Your task to perform on an android device: toggle notification dots Image 0: 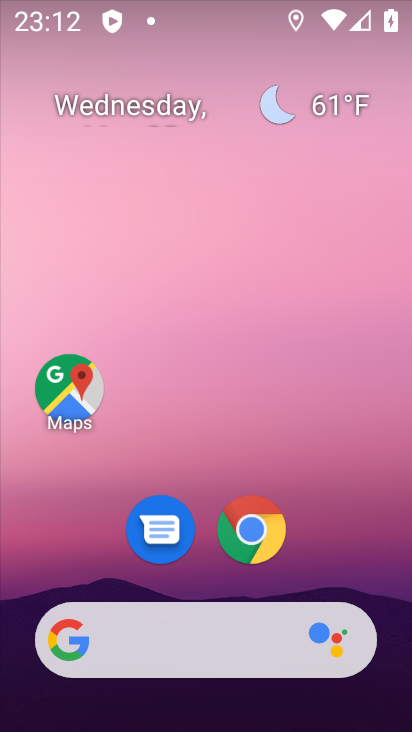
Step 0: drag from (381, 571) to (410, 193)
Your task to perform on an android device: toggle notification dots Image 1: 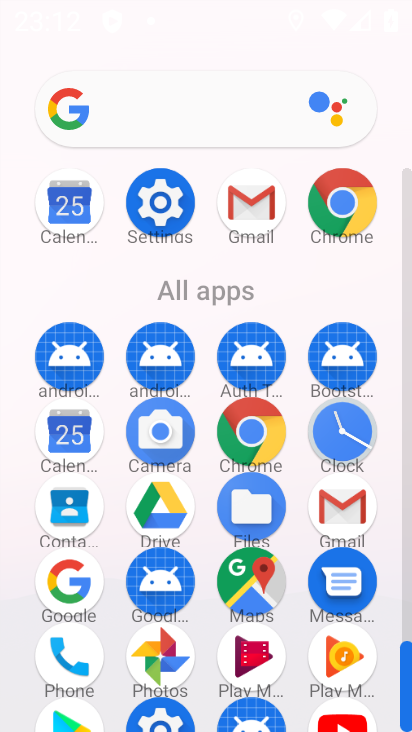
Step 1: click (168, 199)
Your task to perform on an android device: toggle notification dots Image 2: 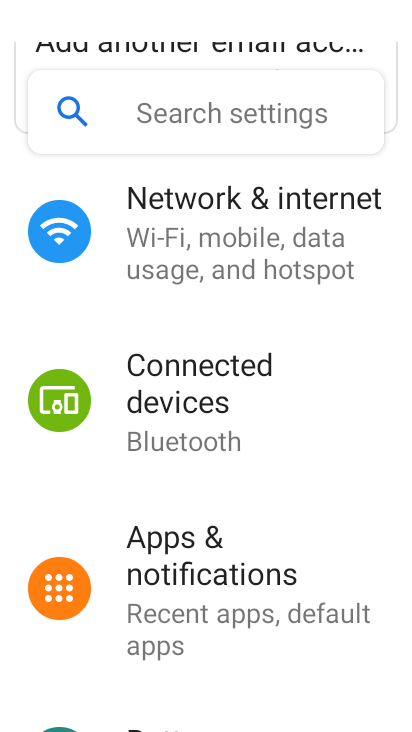
Step 2: drag from (349, 650) to (341, 539)
Your task to perform on an android device: toggle notification dots Image 3: 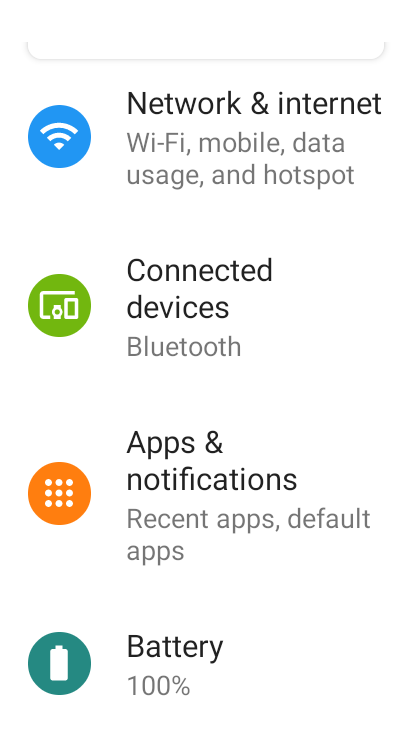
Step 3: drag from (325, 628) to (321, 514)
Your task to perform on an android device: toggle notification dots Image 4: 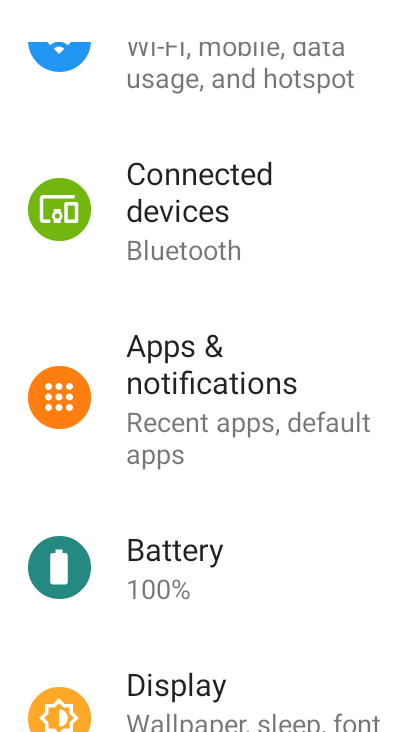
Step 4: drag from (322, 604) to (348, 477)
Your task to perform on an android device: toggle notification dots Image 5: 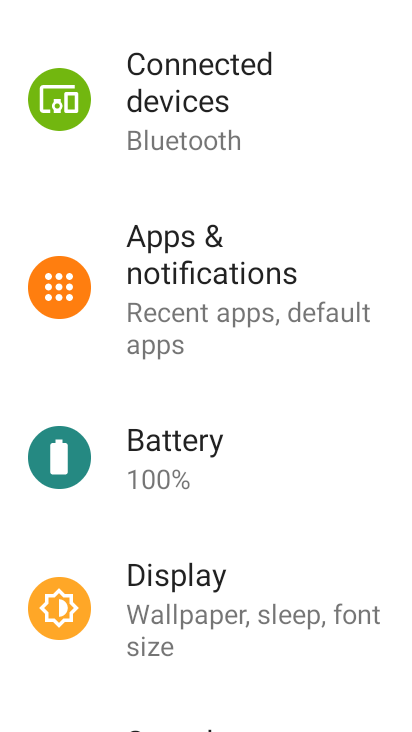
Step 5: drag from (336, 611) to (360, 489)
Your task to perform on an android device: toggle notification dots Image 6: 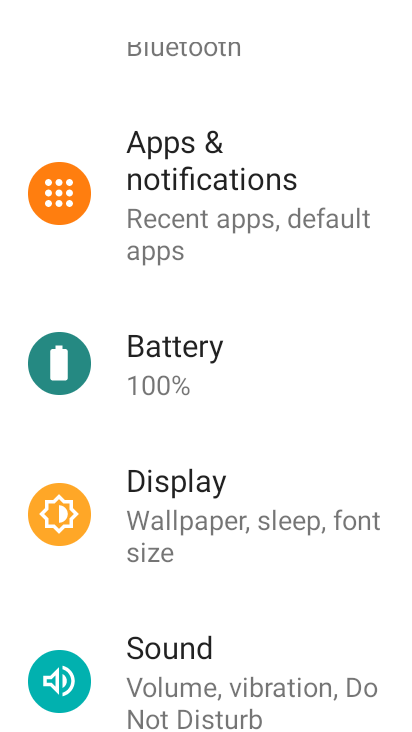
Step 6: drag from (348, 624) to (359, 527)
Your task to perform on an android device: toggle notification dots Image 7: 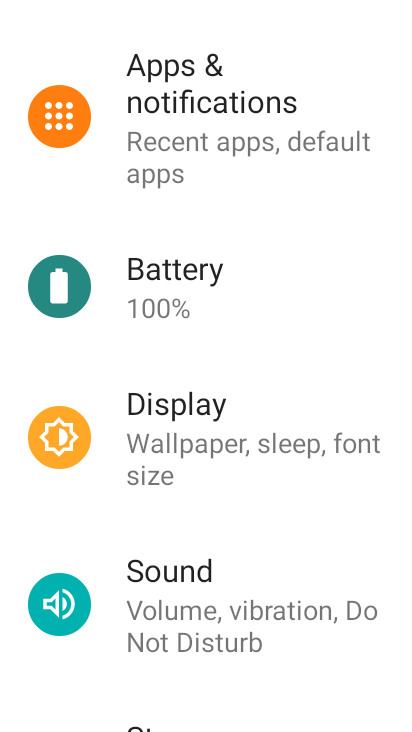
Step 7: drag from (356, 657) to (347, 517)
Your task to perform on an android device: toggle notification dots Image 8: 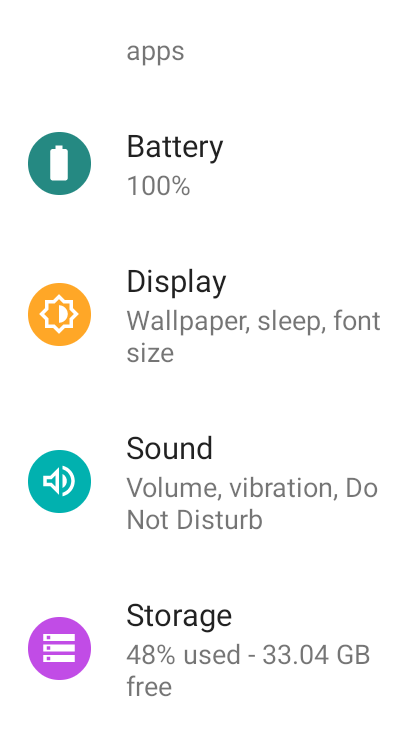
Step 8: drag from (347, 613) to (363, 502)
Your task to perform on an android device: toggle notification dots Image 9: 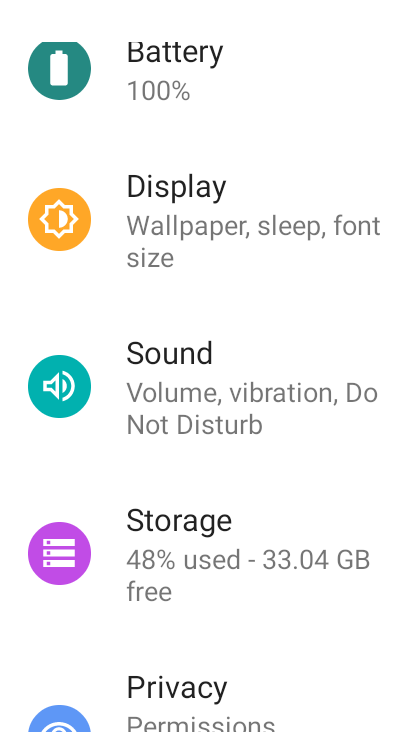
Step 9: drag from (334, 642) to (332, 528)
Your task to perform on an android device: toggle notification dots Image 10: 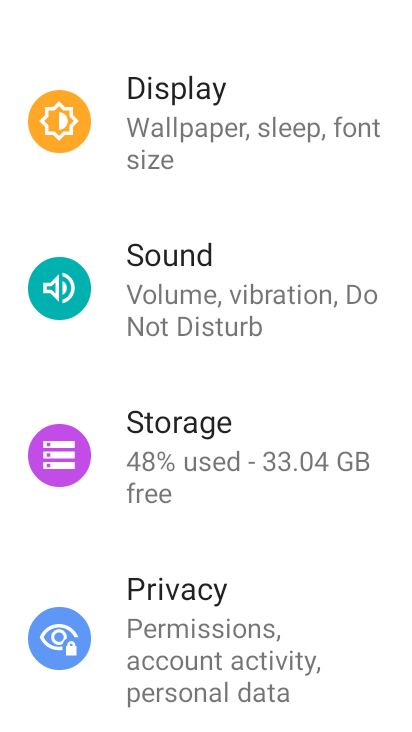
Step 10: drag from (333, 503) to (341, 607)
Your task to perform on an android device: toggle notification dots Image 11: 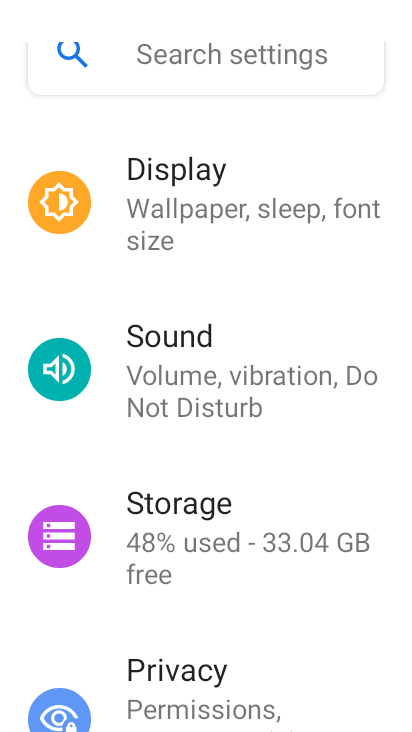
Step 11: drag from (354, 470) to (349, 588)
Your task to perform on an android device: toggle notification dots Image 12: 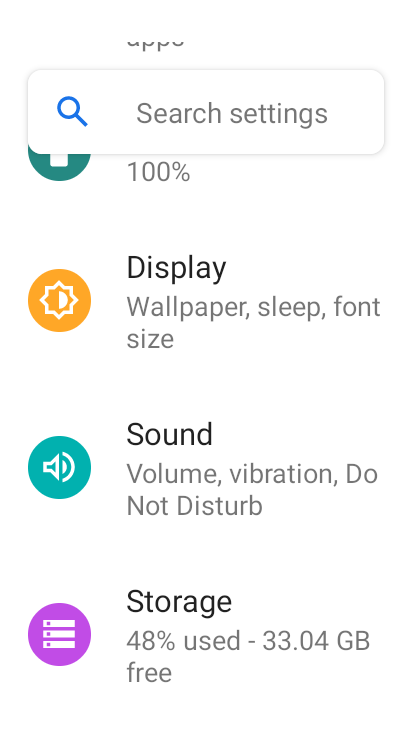
Step 12: drag from (334, 494) to (331, 592)
Your task to perform on an android device: toggle notification dots Image 13: 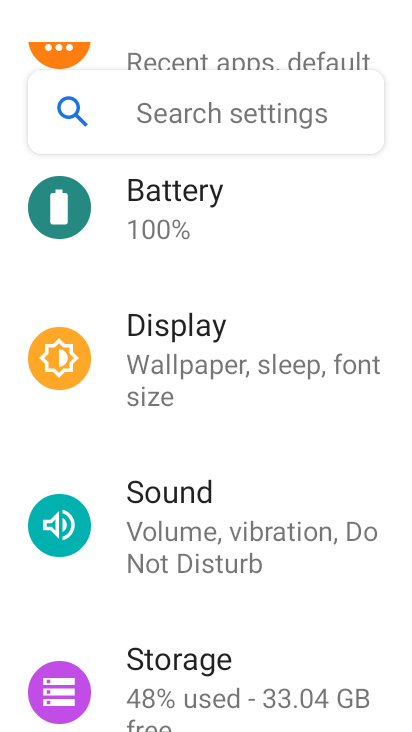
Step 13: drag from (332, 438) to (324, 558)
Your task to perform on an android device: toggle notification dots Image 14: 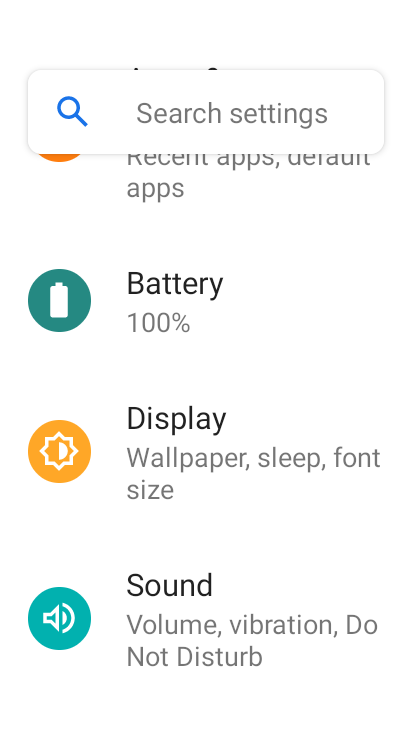
Step 14: drag from (335, 386) to (321, 494)
Your task to perform on an android device: toggle notification dots Image 15: 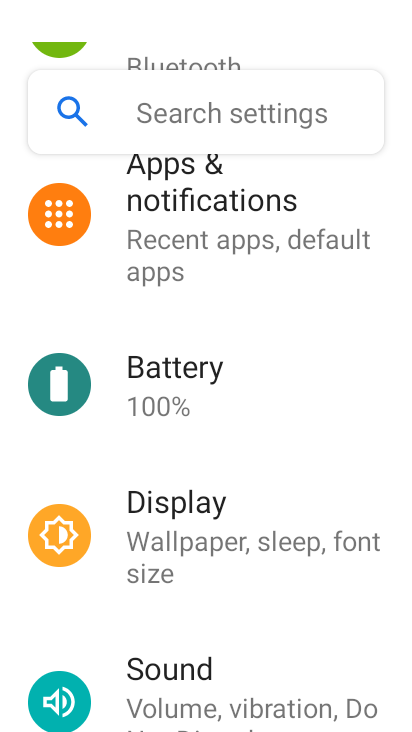
Step 15: drag from (328, 346) to (333, 443)
Your task to perform on an android device: toggle notification dots Image 16: 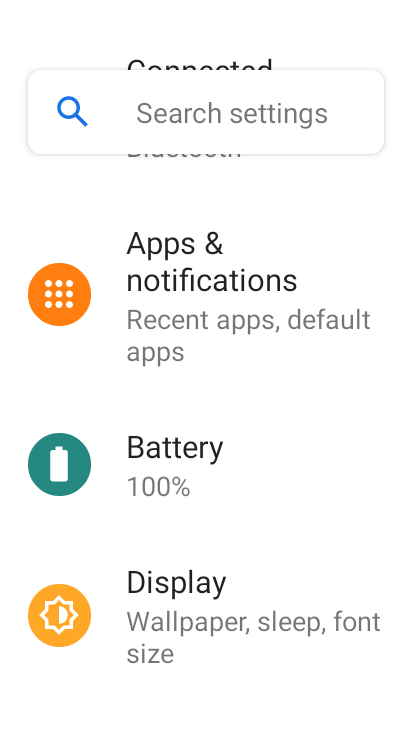
Step 16: drag from (332, 374) to (321, 474)
Your task to perform on an android device: toggle notification dots Image 17: 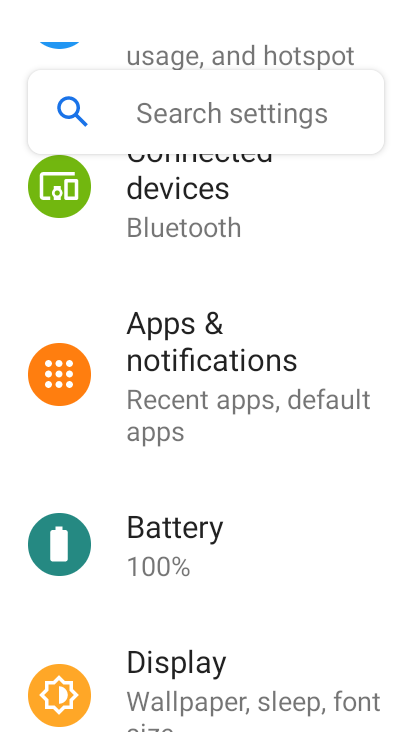
Step 17: click (273, 390)
Your task to perform on an android device: toggle notification dots Image 18: 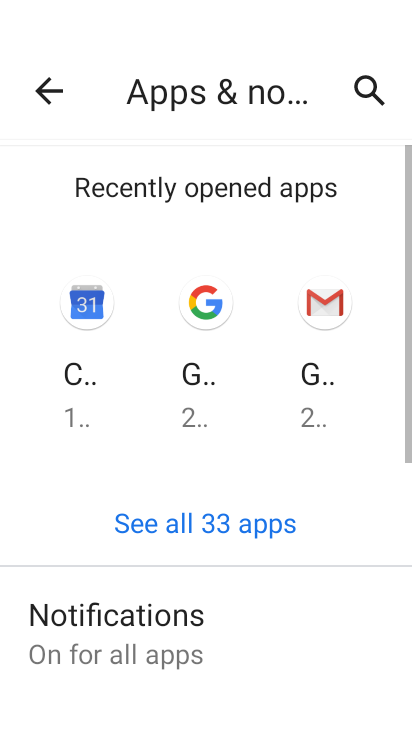
Step 18: drag from (269, 513) to (281, 398)
Your task to perform on an android device: toggle notification dots Image 19: 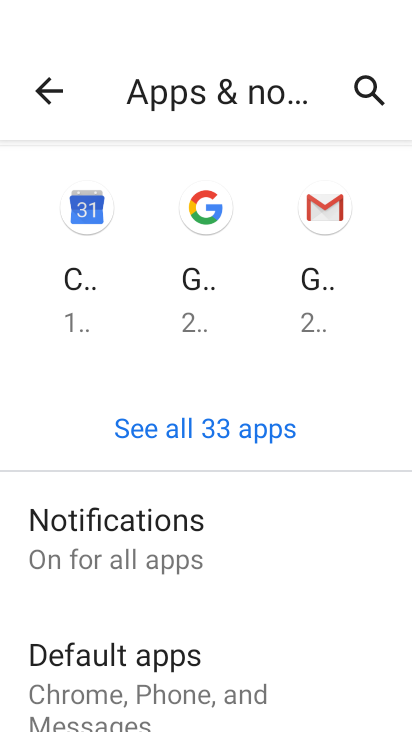
Step 19: drag from (291, 537) to (313, 421)
Your task to perform on an android device: toggle notification dots Image 20: 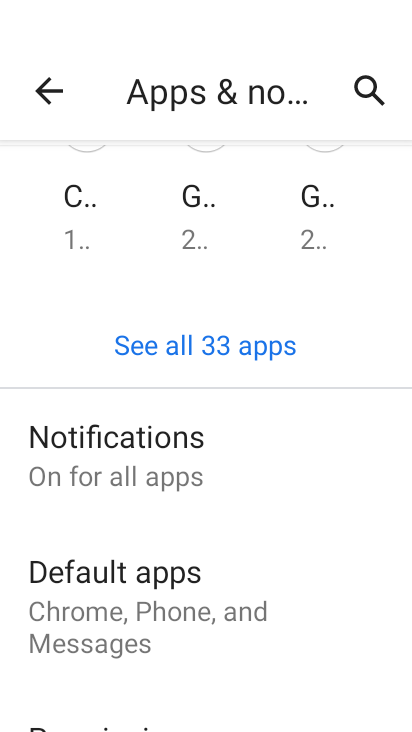
Step 20: click (267, 465)
Your task to perform on an android device: toggle notification dots Image 21: 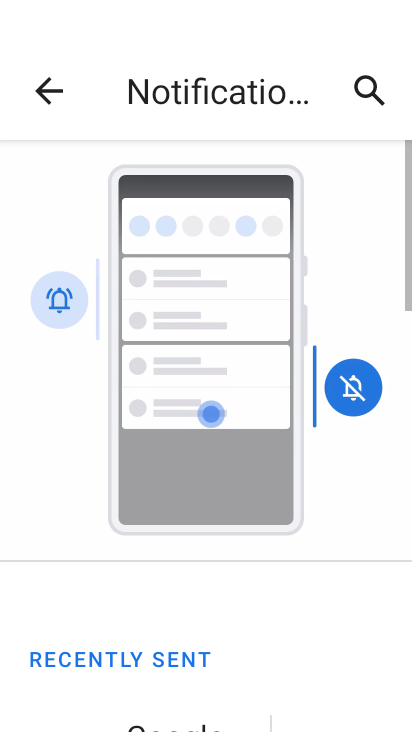
Step 21: drag from (310, 560) to (325, 445)
Your task to perform on an android device: toggle notification dots Image 22: 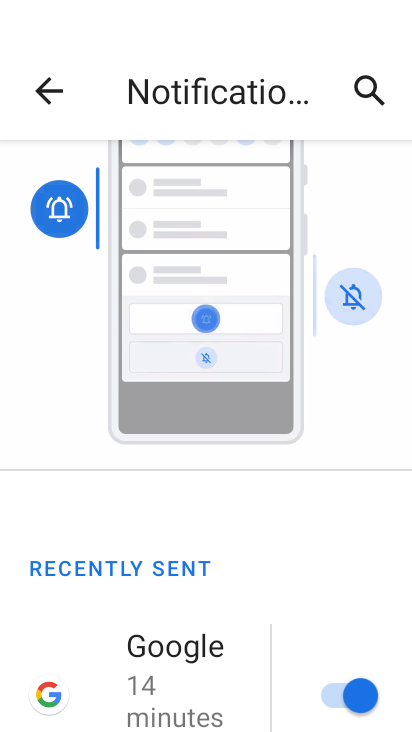
Step 22: drag from (303, 576) to (315, 489)
Your task to perform on an android device: toggle notification dots Image 23: 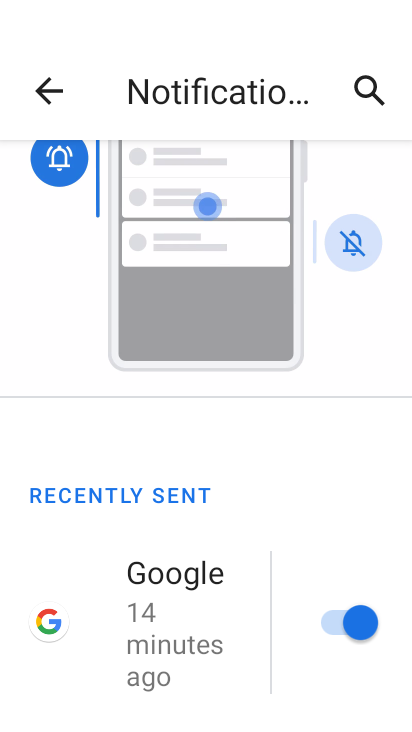
Step 23: drag from (302, 591) to (313, 504)
Your task to perform on an android device: toggle notification dots Image 24: 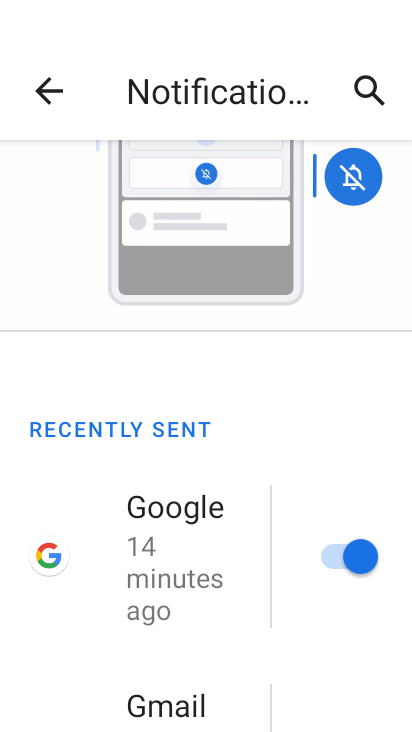
Step 24: drag from (293, 563) to (294, 469)
Your task to perform on an android device: toggle notification dots Image 25: 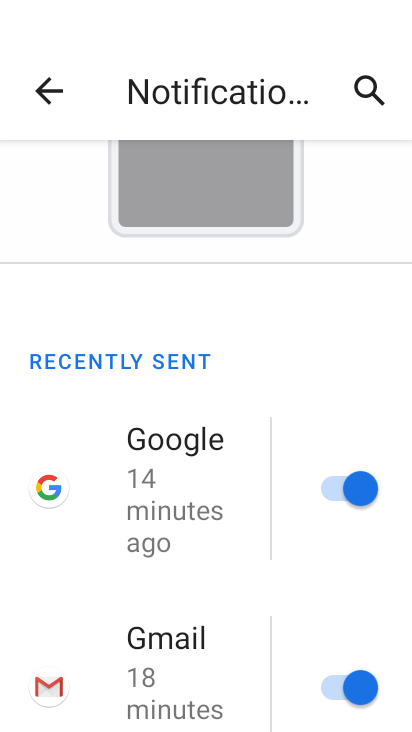
Step 25: drag from (263, 607) to (259, 514)
Your task to perform on an android device: toggle notification dots Image 26: 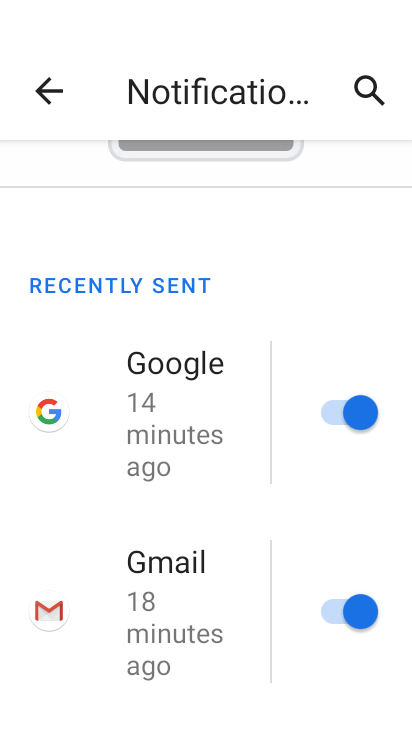
Step 26: drag from (240, 599) to (249, 475)
Your task to perform on an android device: toggle notification dots Image 27: 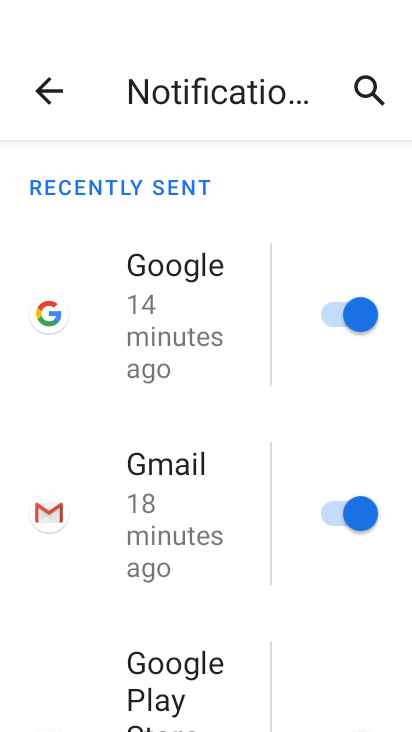
Step 27: drag from (271, 612) to (273, 522)
Your task to perform on an android device: toggle notification dots Image 28: 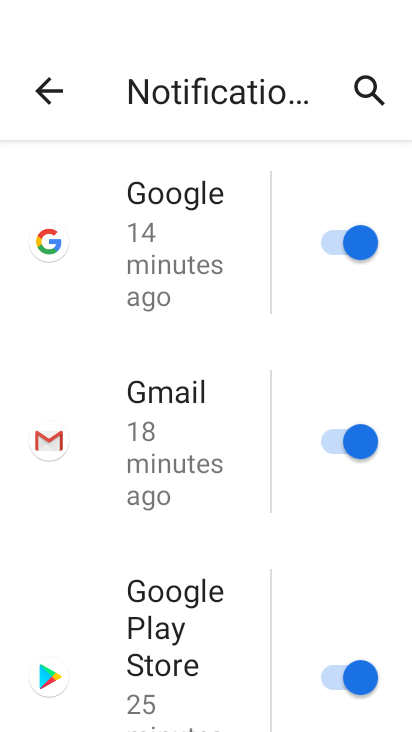
Step 28: drag from (276, 572) to (283, 506)
Your task to perform on an android device: toggle notification dots Image 29: 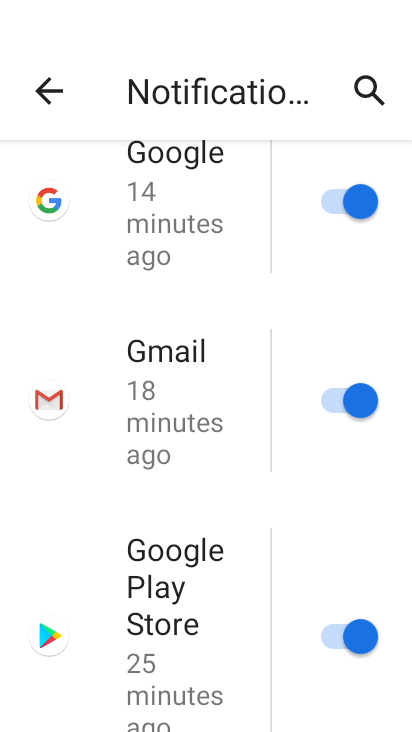
Step 29: drag from (275, 587) to (284, 479)
Your task to perform on an android device: toggle notification dots Image 30: 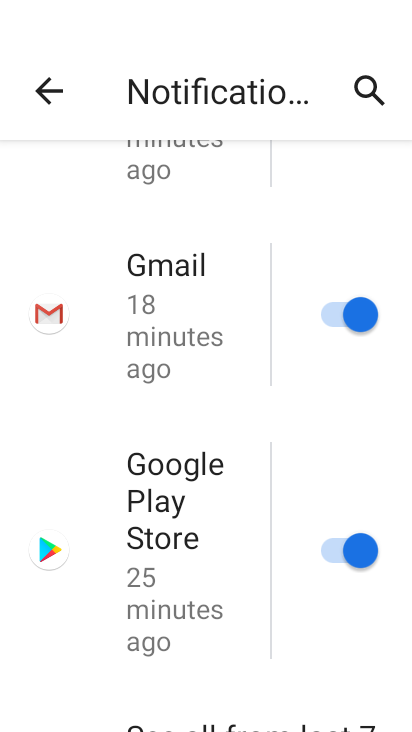
Step 30: drag from (284, 630) to (299, 482)
Your task to perform on an android device: toggle notification dots Image 31: 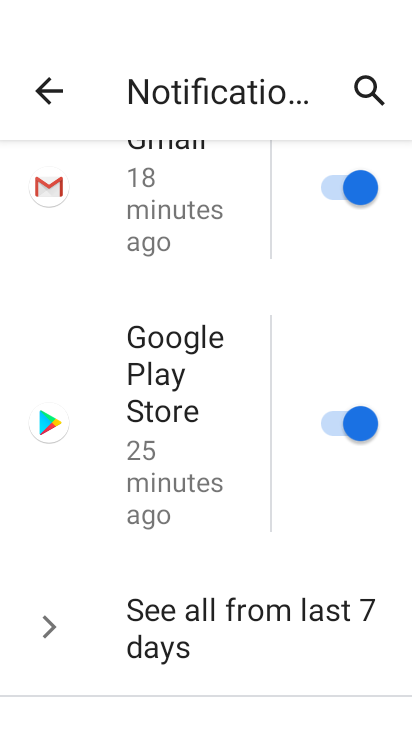
Step 31: drag from (285, 610) to (302, 467)
Your task to perform on an android device: toggle notification dots Image 32: 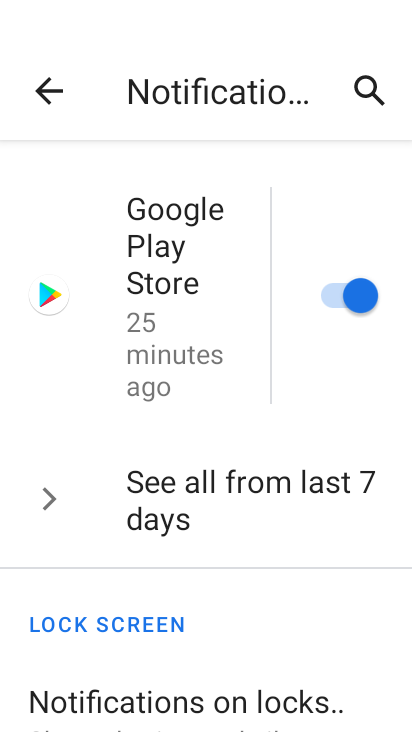
Step 32: drag from (304, 620) to (303, 500)
Your task to perform on an android device: toggle notification dots Image 33: 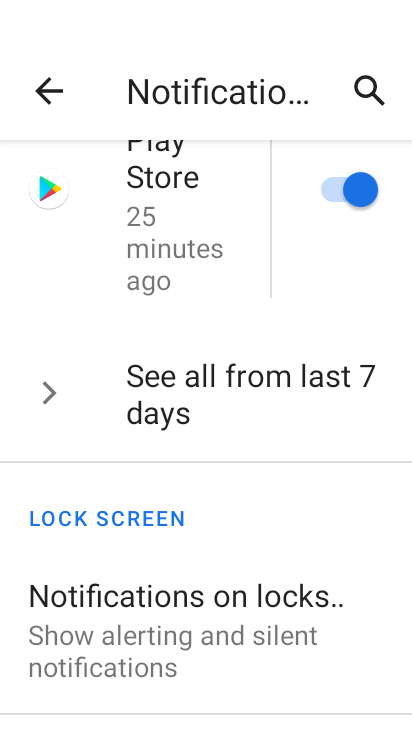
Step 33: drag from (296, 615) to (283, 419)
Your task to perform on an android device: toggle notification dots Image 34: 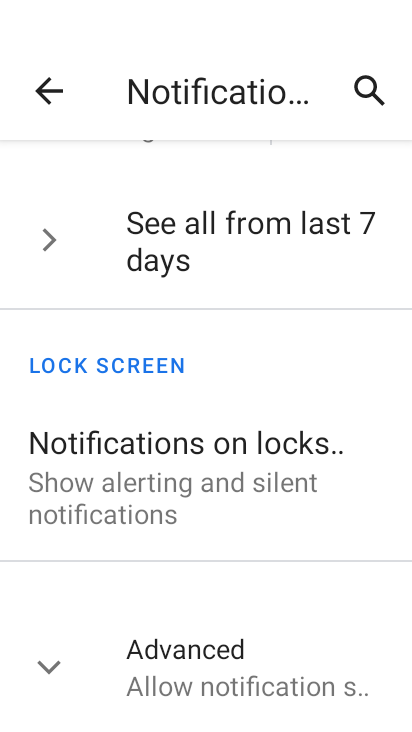
Step 34: click (269, 670)
Your task to perform on an android device: toggle notification dots Image 35: 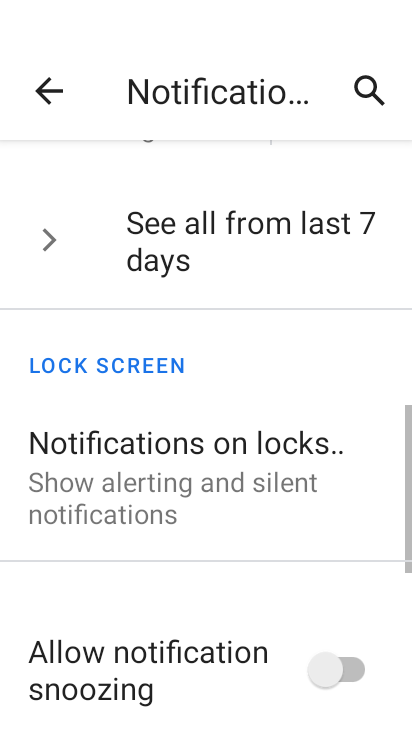
Step 35: drag from (269, 670) to (260, 527)
Your task to perform on an android device: toggle notification dots Image 36: 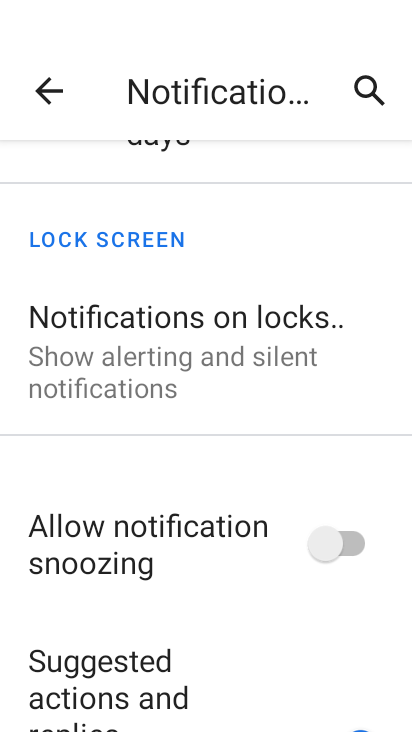
Step 36: drag from (244, 681) to (240, 566)
Your task to perform on an android device: toggle notification dots Image 37: 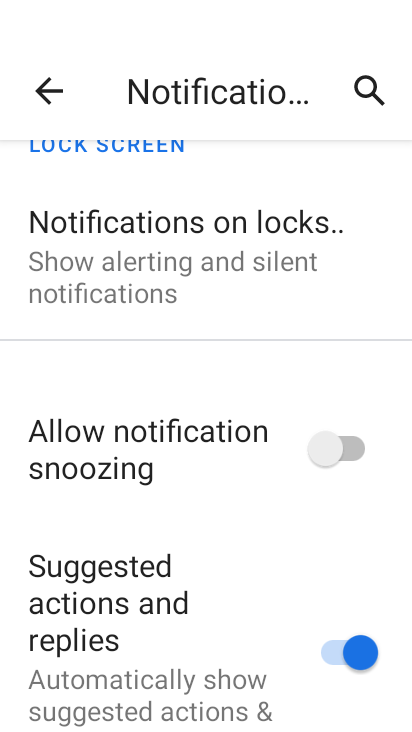
Step 37: drag from (243, 687) to (247, 548)
Your task to perform on an android device: toggle notification dots Image 38: 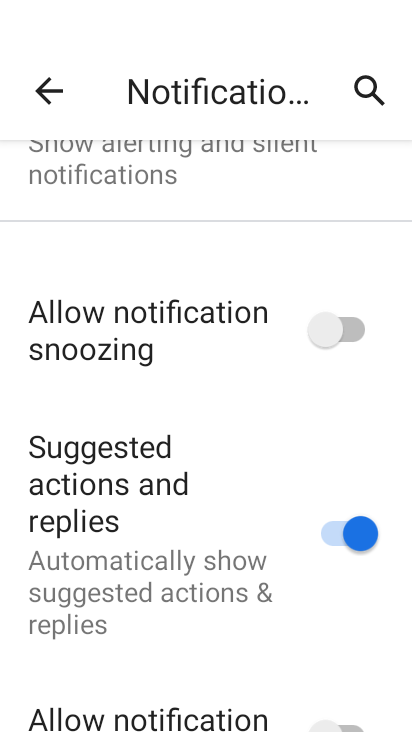
Step 38: drag from (267, 662) to (287, 478)
Your task to perform on an android device: toggle notification dots Image 39: 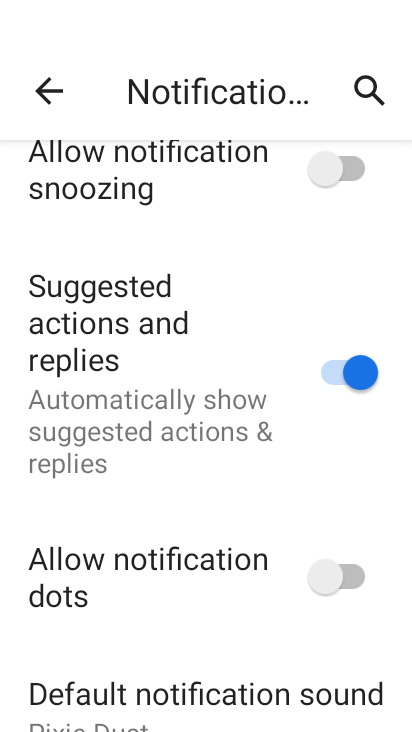
Step 39: click (331, 583)
Your task to perform on an android device: toggle notification dots Image 40: 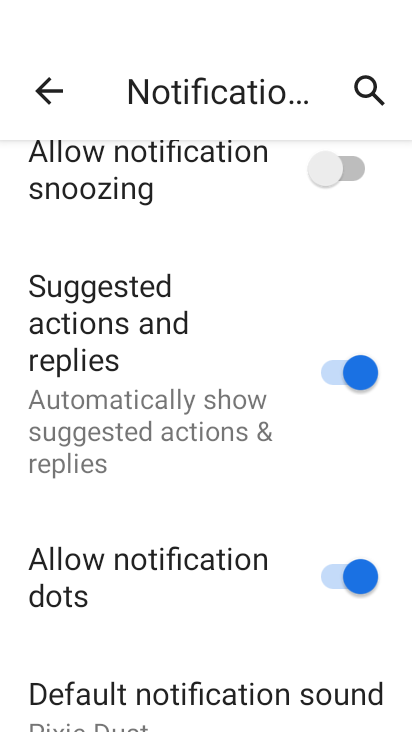
Step 40: task complete